Your task to perform on an android device: turn on airplane mode Image 0: 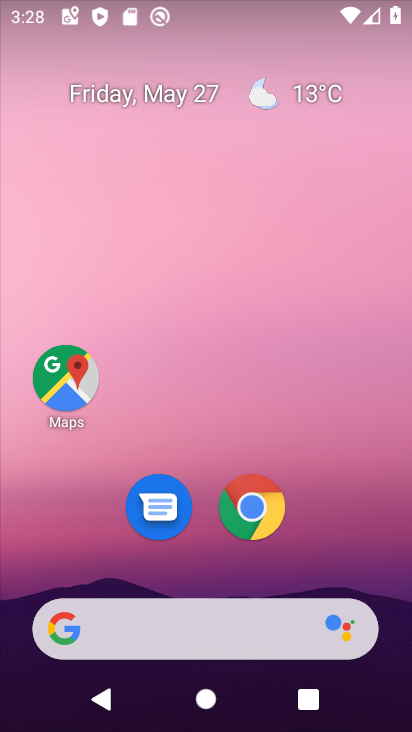
Step 0: drag from (91, 587) to (196, 120)
Your task to perform on an android device: turn on airplane mode Image 1: 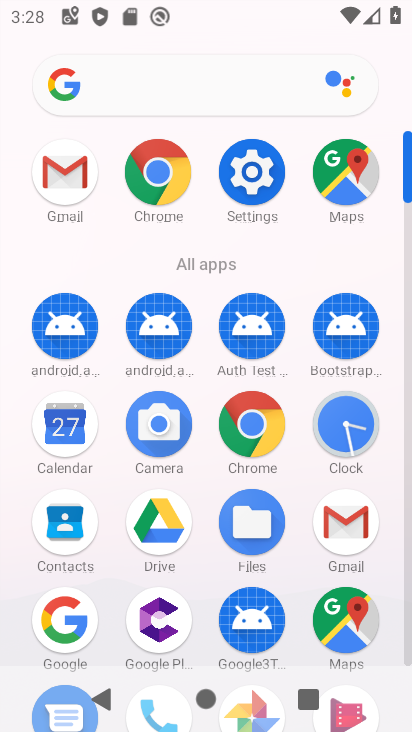
Step 1: drag from (177, 685) to (249, 394)
Your task to perform on an android device: turn on airplane mode Image 2: 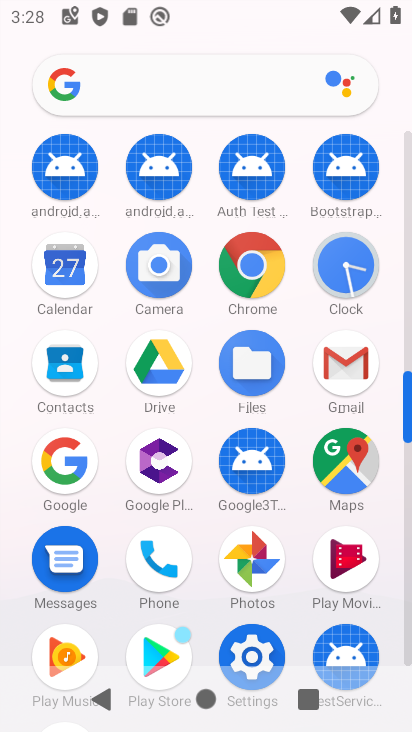
Step 2: click (244, 636)
Your task to perform on an android device: turn on airplane mode Image 3: 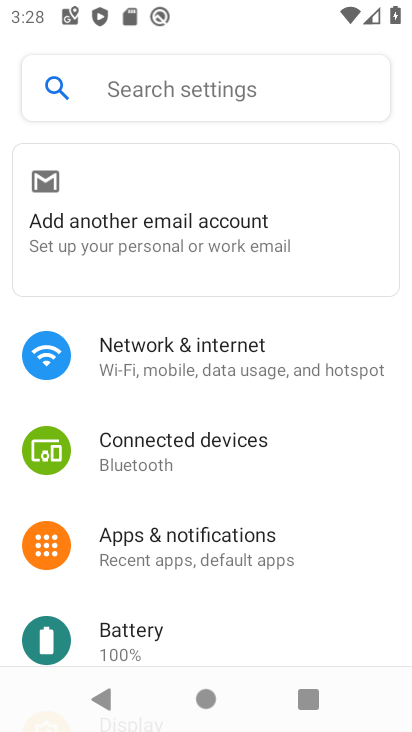
Step 3: click (262, 361)
Your task to perform on an android device: turn on airplane mode Image 4: 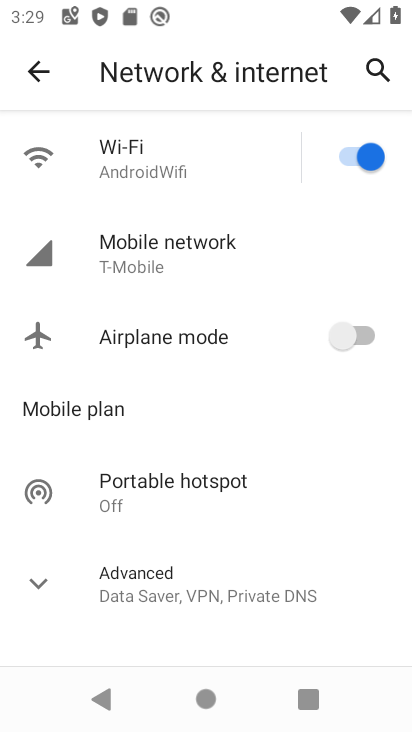
Step 4: click (388, 332)
Your task to perform on an android device: turn on airplane mode Image 5: 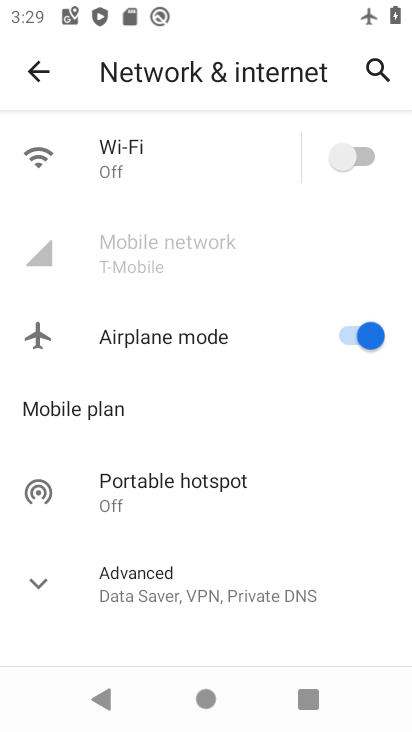
Step 5: task complete